Your task to perform on an android device: Go to ESPN.com Image 0: 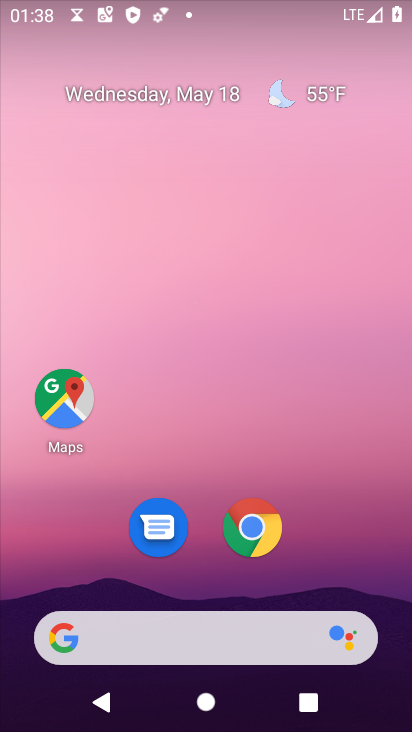
Step 0: click (263, 524)
Your task to perform on an android device: Go to ESPN.com Image 1: 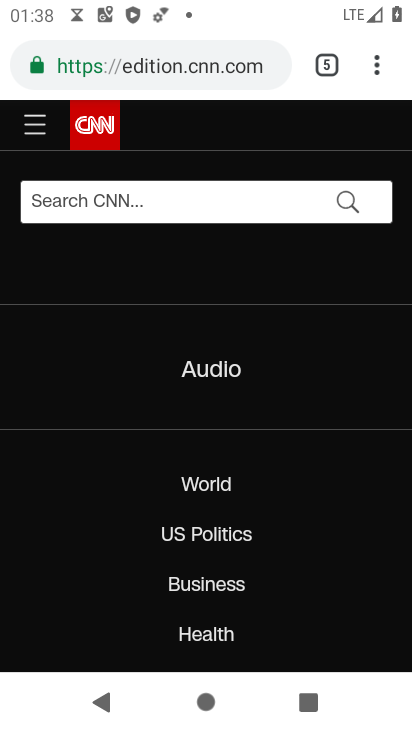
Step 1: click (318, 60)
Your task to perform on an android device: Go to ESPN.com Image 2: 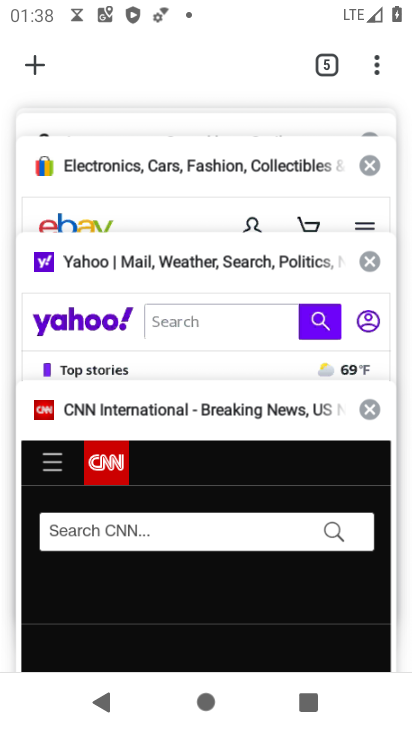
Step 2: click (33, 60)
Your task to perform on an android device: Go to ESPN.com Image 3: 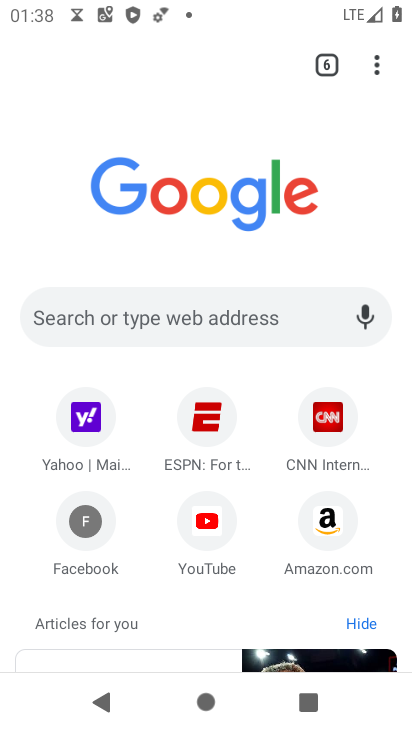
Step 3: click (205, 423)
Your task to perform on an android device: Go to ESPN.com Image 4: 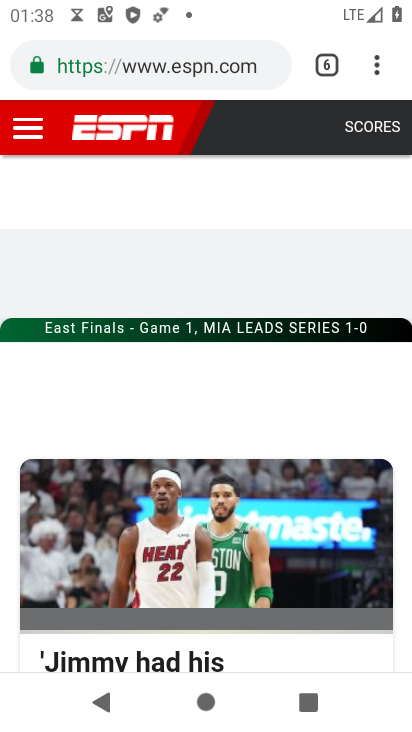
Step 4: task complete